Your task to perform on an android device: Go to location settings Image 0: 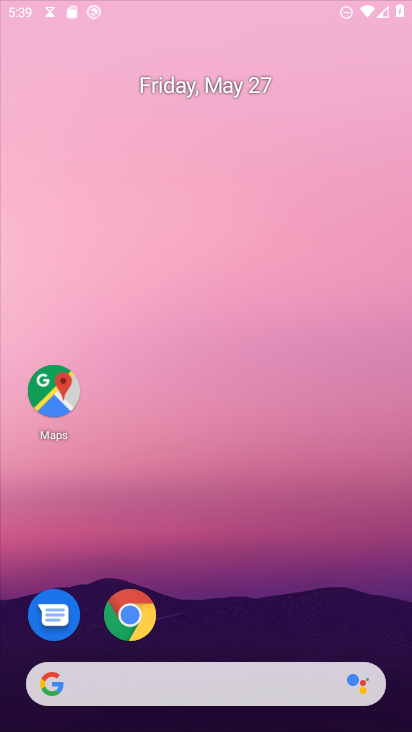
Step 0: drag from (344, 548) to (258, 77)
Your task to perform on an android device: Go to location settings Image 1: 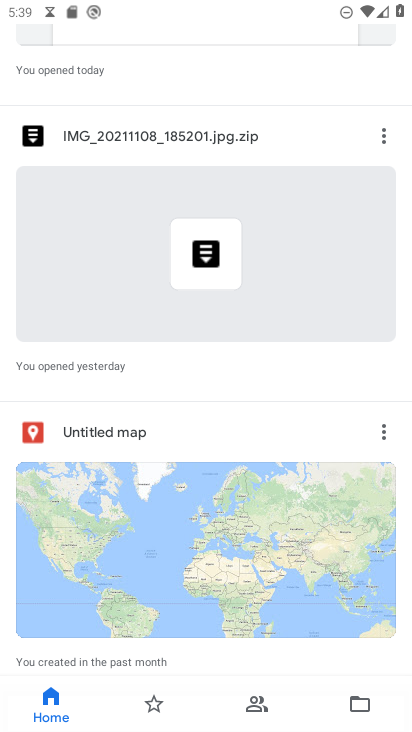
Step 1: press home button
Your task to perform on an android device: Go to location settings Image 2: 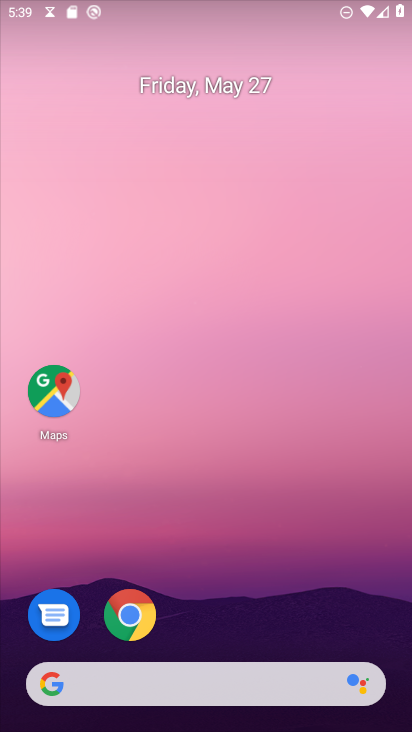
Step 2: drag from (260, 543) to (238, 28)
Your task to perform on an android device: Go to location settings Image 3: 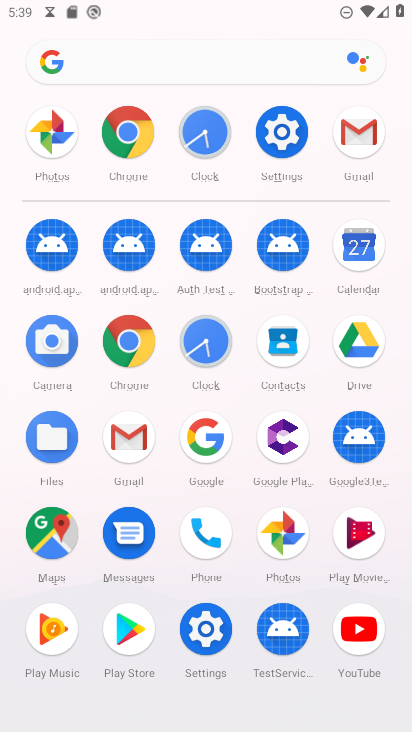
Step 3: click (282, 140)
Your task to perform on an android device: Go to location settings Image 4: 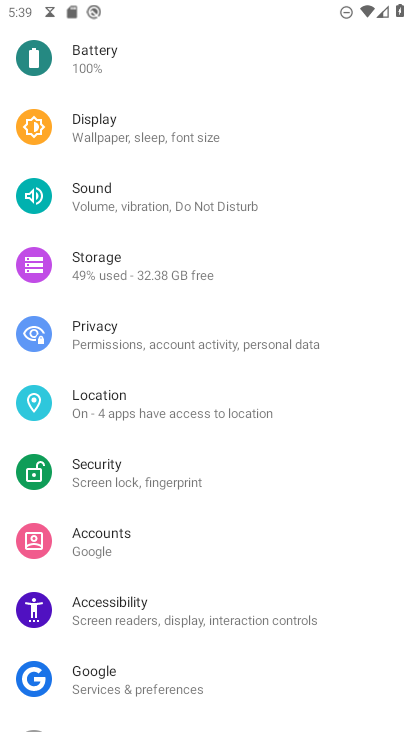
Step 4: click (150, 397)
Your task to perform on an android device: Go to location settings Image 5: 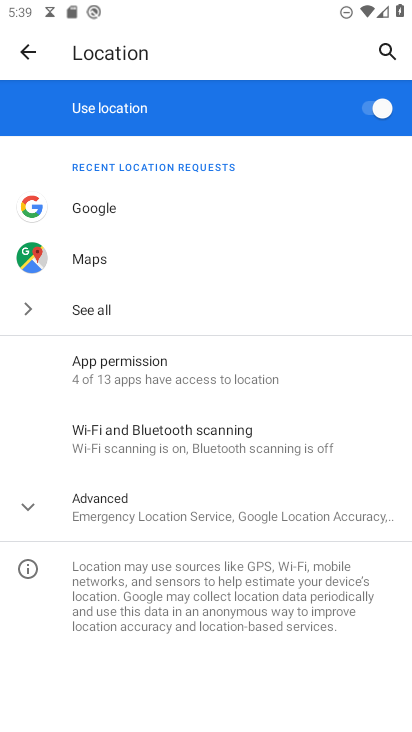
Step 5: task complete